Your task to perform on an android device: Open a new incognito tab in the chrome app Image 0: 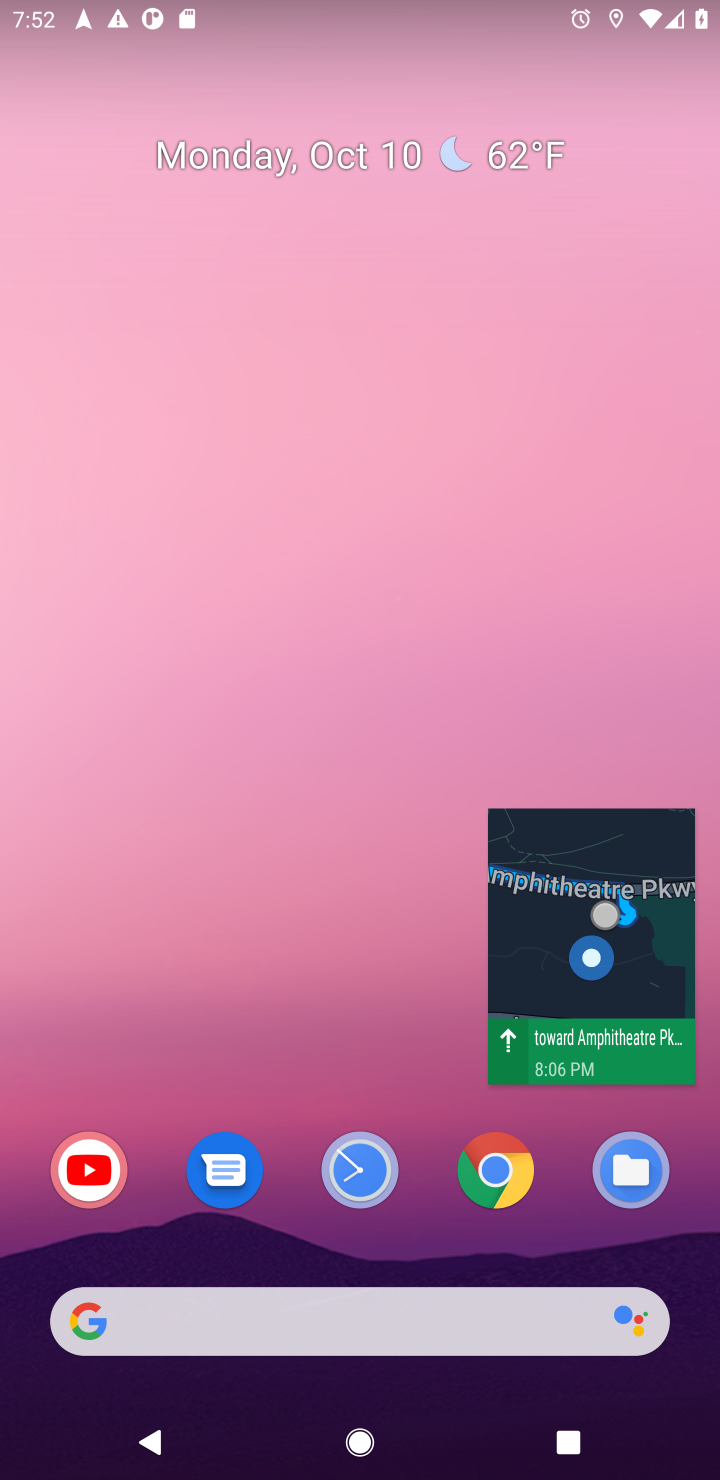
Step 0: drag from (585, 936) to (377, 1320)
Your task to perform on an android device: Open a new incognito tab in the chrome app Image 1: 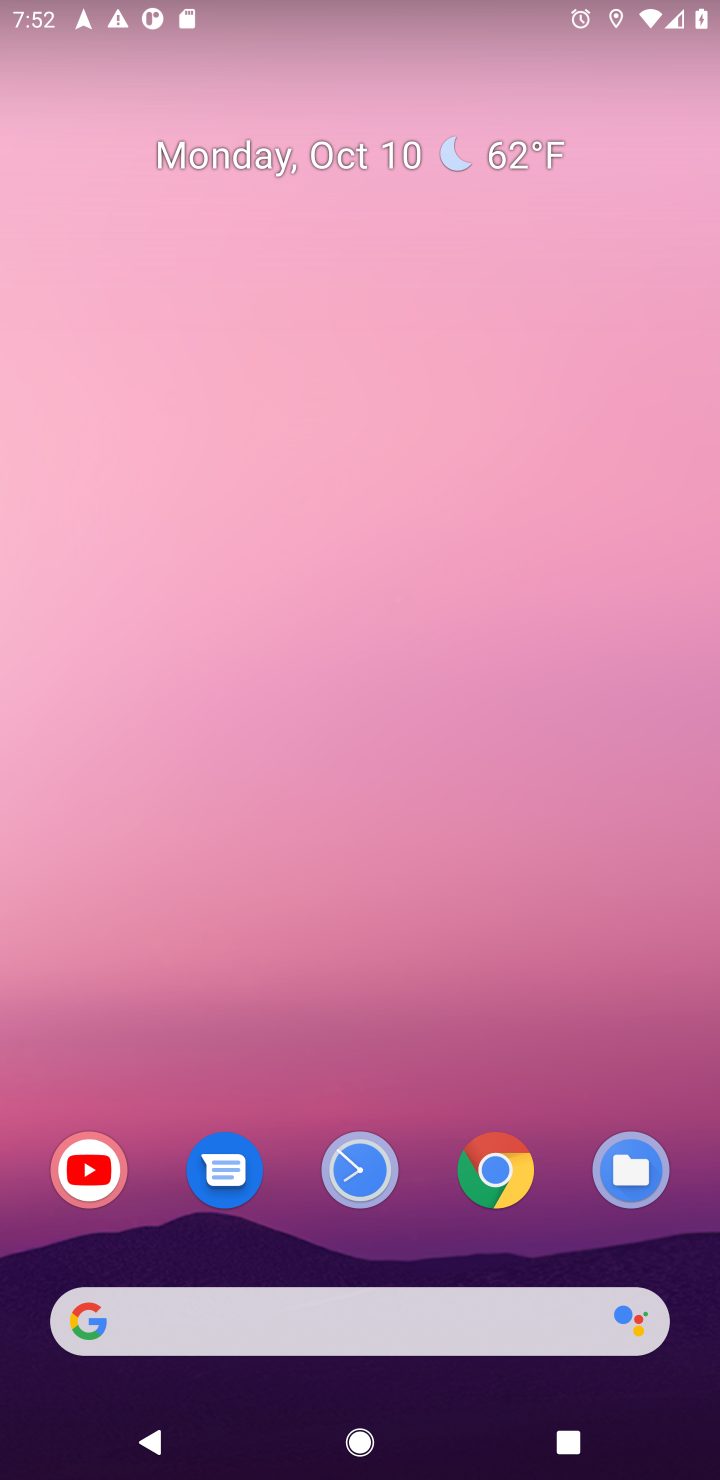
Step 1: click (509, 1167)
Your task to perform on an android device: Open a new incognito tab in the chrome app Image 2: 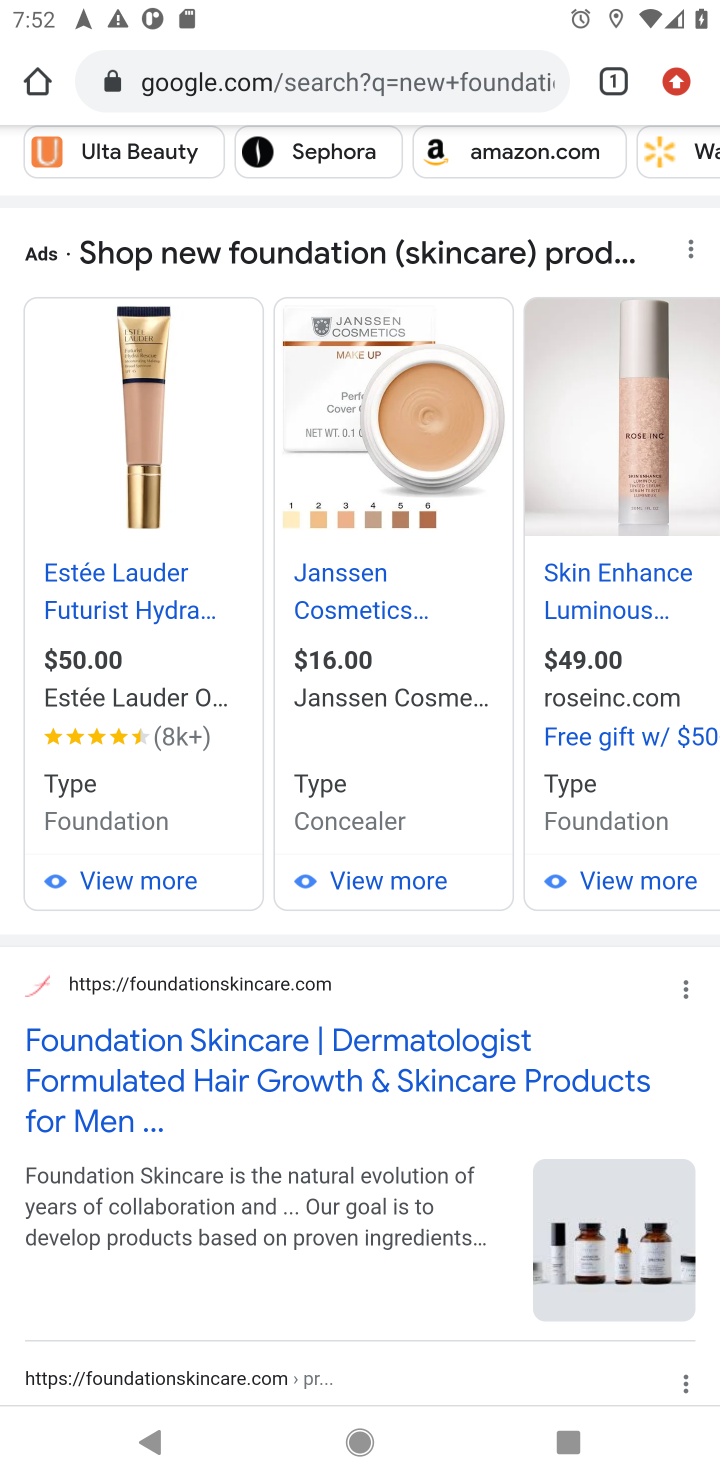
Step 2: click (677, 91)
Your task to perform on an android device: Open a new incognito tab in the chrome app Image 3: 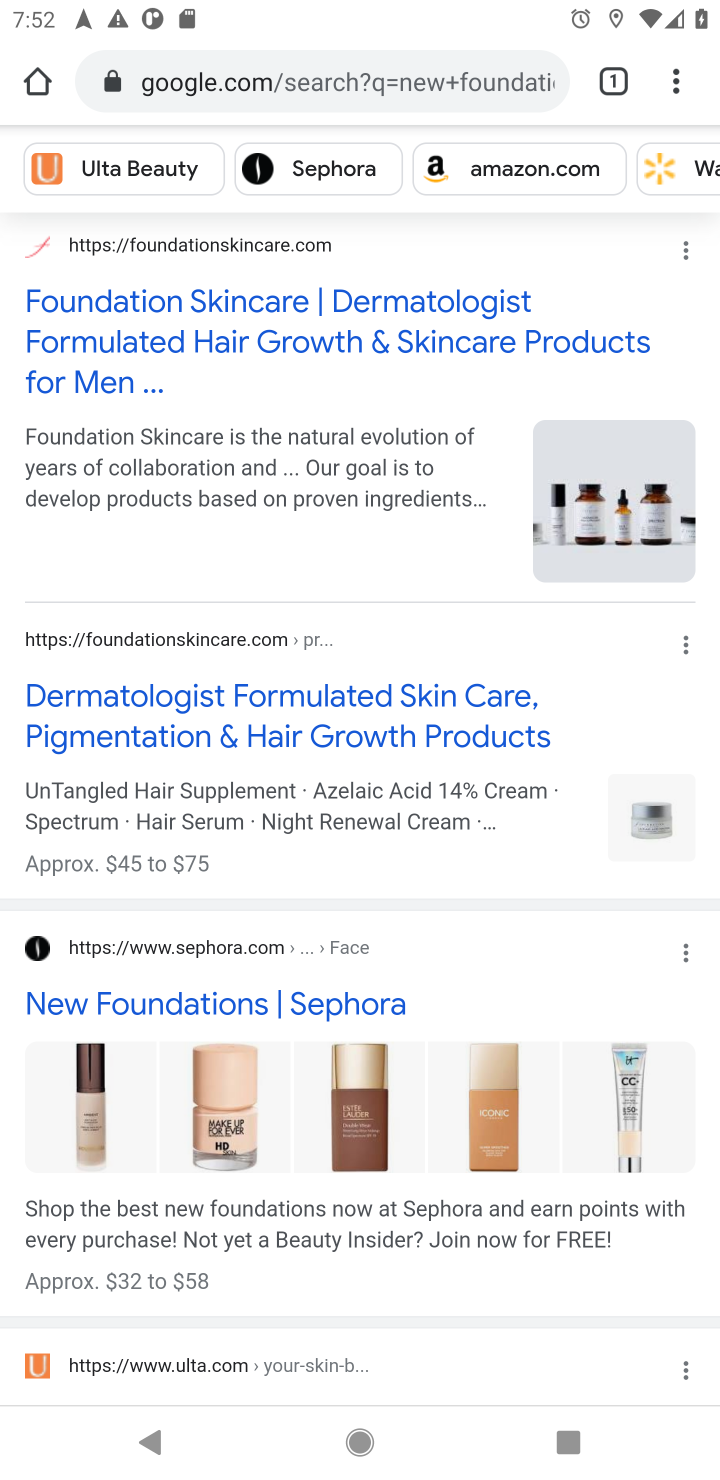
Step 3: click (677, 91)
Your task to perform on an android device: Open a new incognito tab in the chrome app Image 4: 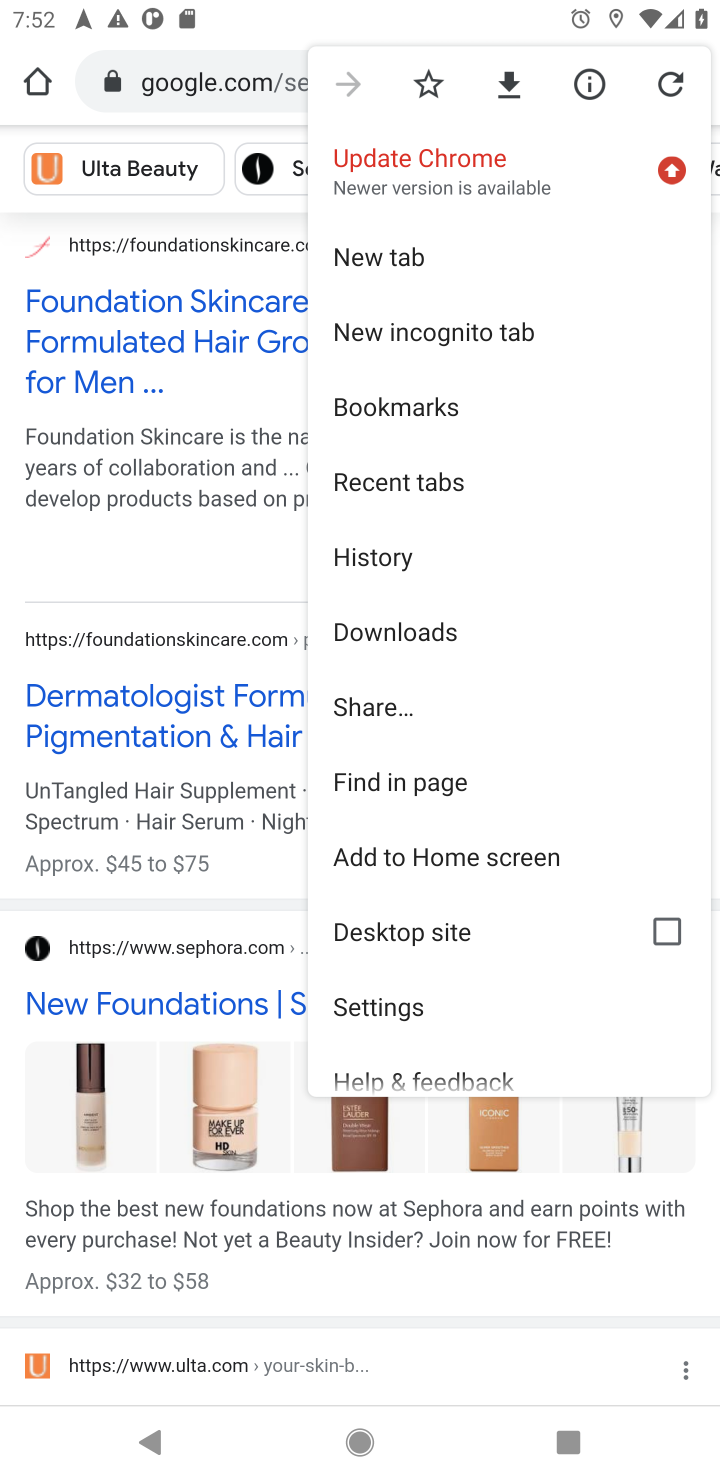
Step 4: click (524, 330)
Your task to perform on an android device: Open a new incognito tab in the chrome app Image 5: 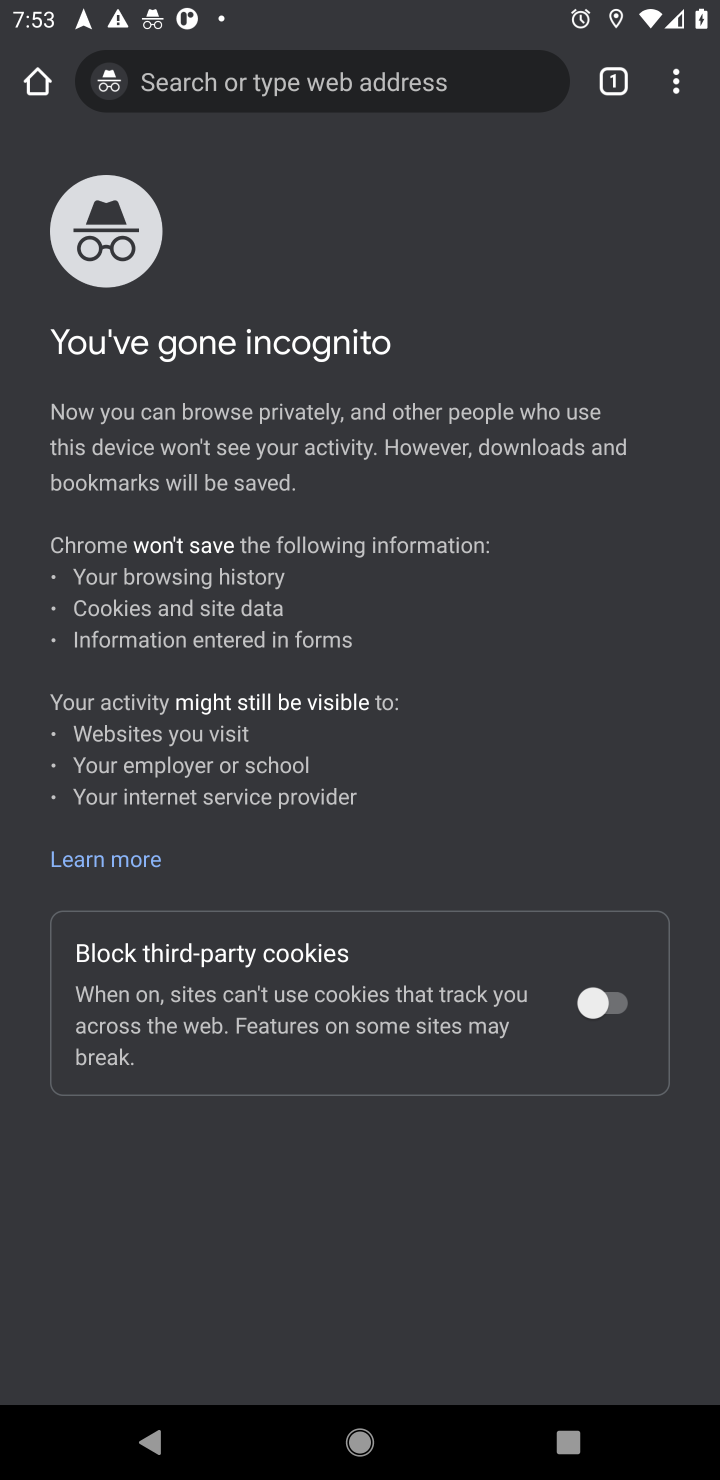
Step 5: task complete